Your task to perform on an android device: Check the news Image 0: 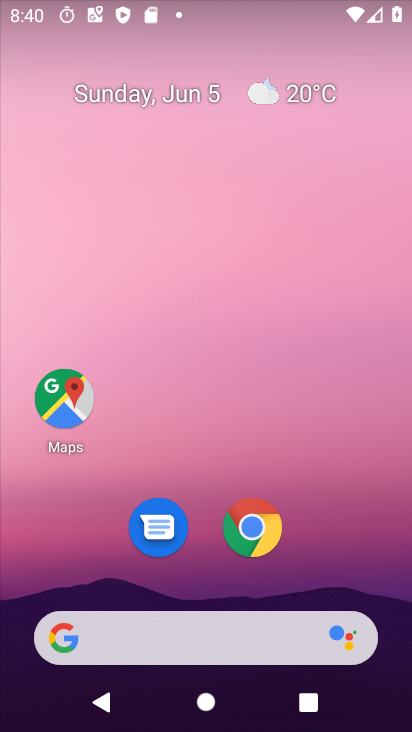
Step 0: drag from (1, 250) to (321, 222)
Your task to perform on an android device: Check the news Image 1: 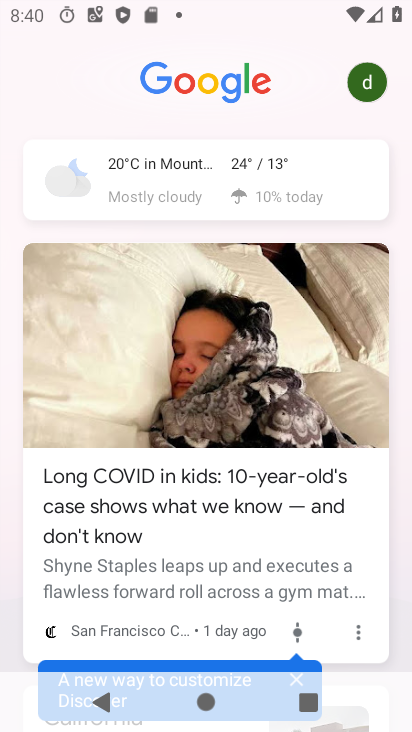
Step 1: task complete